Your task to perform on an android device: all mails in gmail Image 0: 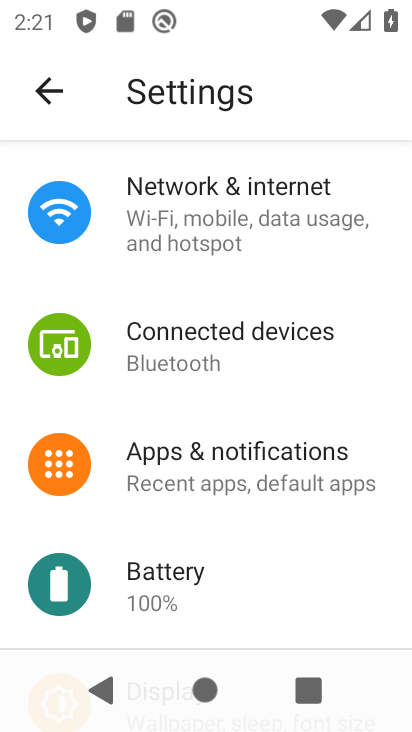
Step 0: press back button
Your task to perform on an android device: all mails in gmail Image 1: 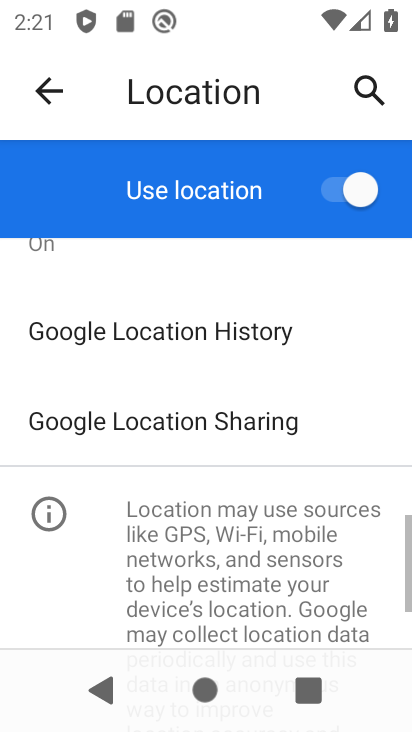
Step 1: press back button
Your task to perform on an android device: all mails in gmail Image 2: 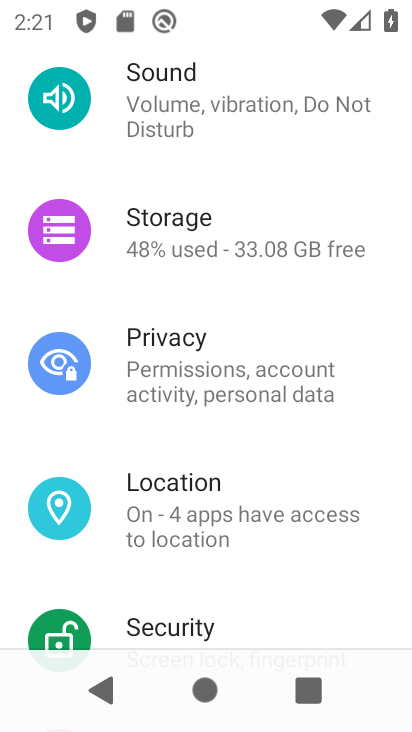
Step 2: press back button
Your task to perform on an android device: all mails in gmail Image 3: 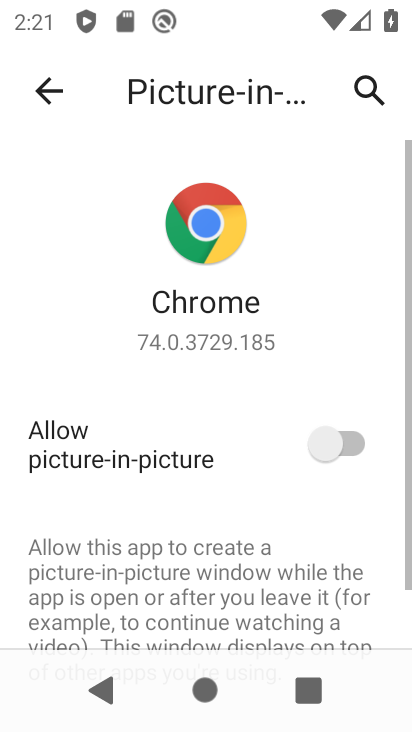
Step 3: press back button
Your task to perform on an android device: all mails in gmail Image 4: 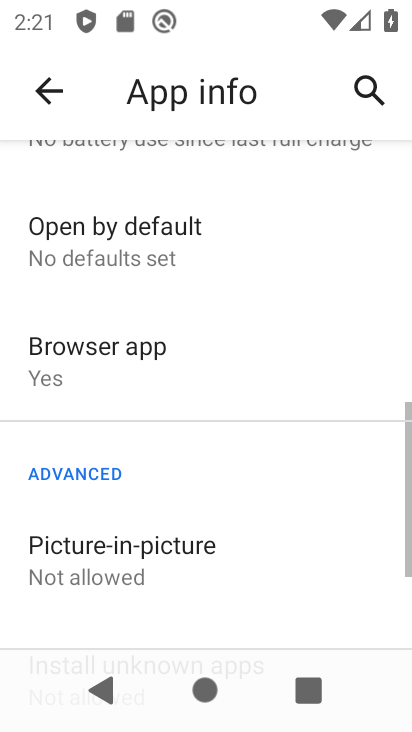
Step 4: press back button
Your task to perform on an android device: all mails in gmail Image 5: 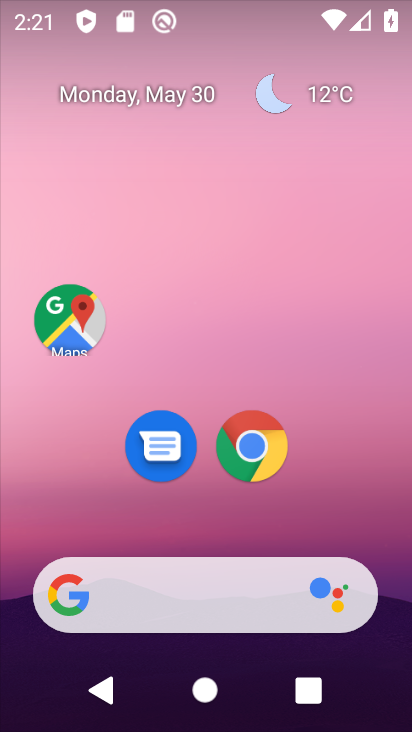
Step 5: drag from (330, 522) to (191, 74)
Your task to perform on an android device: all mails in gmail Image 6: 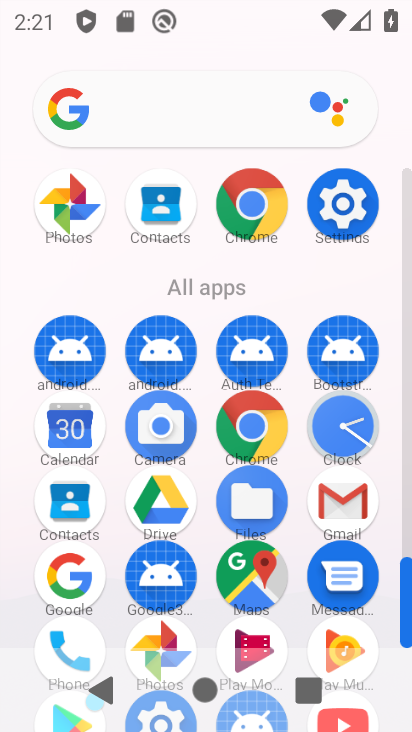
Step 6: click (343, 509)
Your task to perform on an android device: all mails in gmail Image 7: 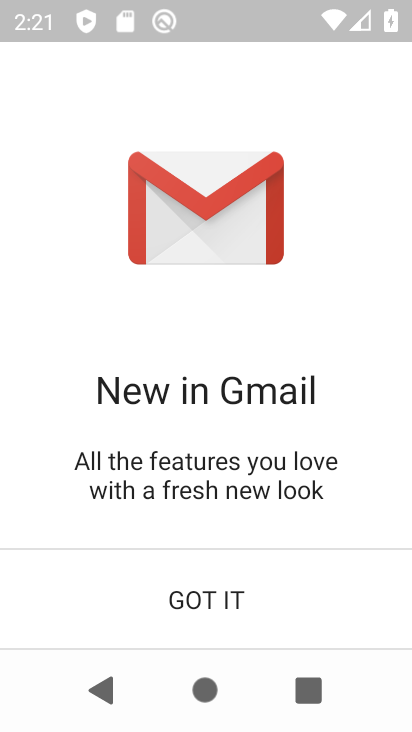
Step 7: click (214, 599)
Your task to perform on an android device: all mails in gmail Image 8: 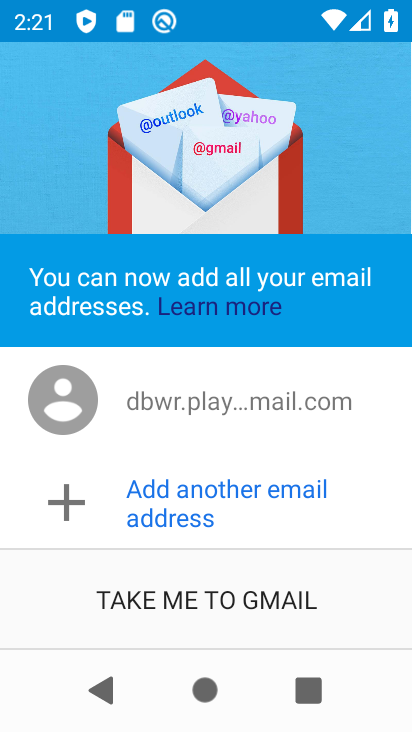
Step 8: click (214, 599)
Your task to perform on an android device: all mails in gmail Image 9: 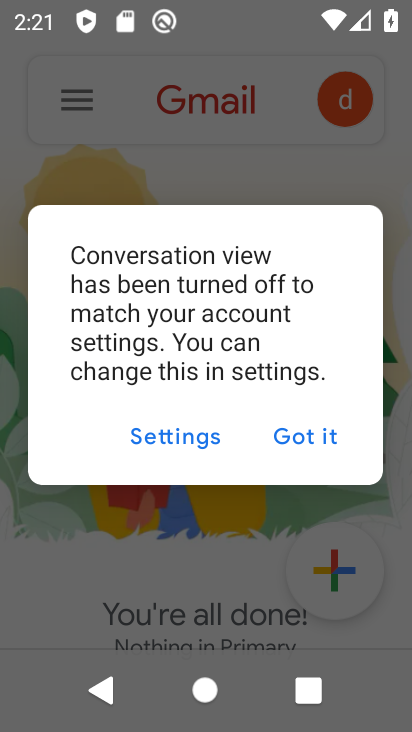
Step 9: click (307, 435)
Your task to perform on an android device: all mails in gmail Image 10: 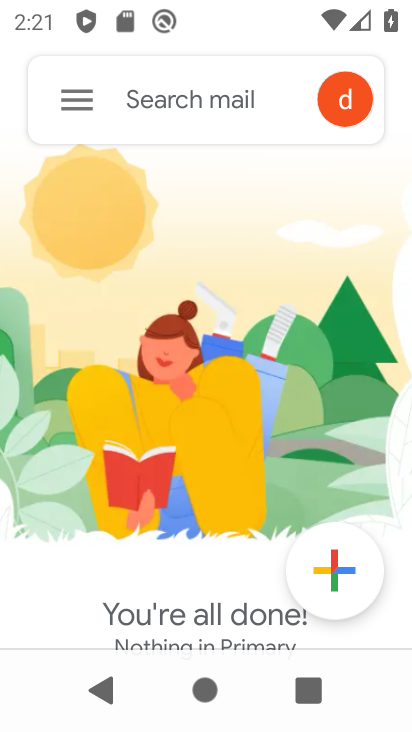
Step 10: click (74, 96)
Your task to perform on an android device: all mails in gmail Image 11: 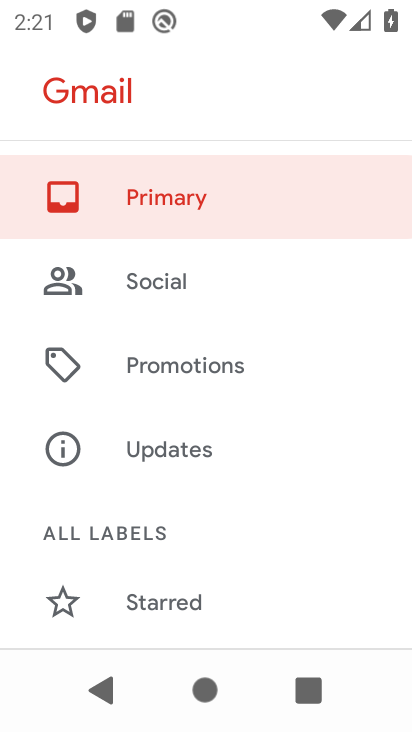
Step 11: drag from (161, 409) to (206, 317)
Your task to perform on an android device: all mails in gmail Image 12: 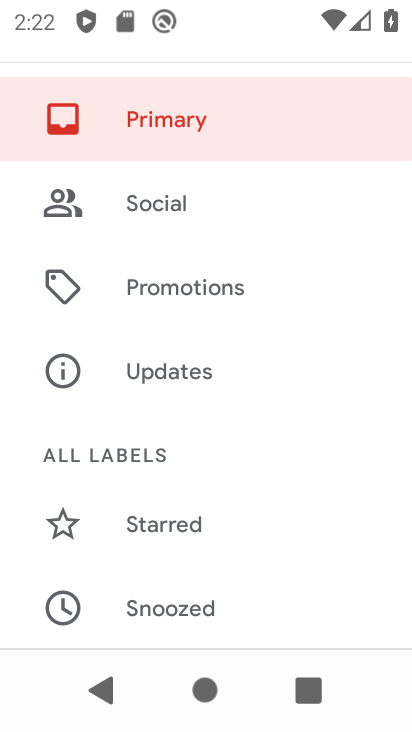
Step 12: drag from (167, 553) to (222, 473)
Your task to perform on an android device: all mails in gmail Image 13: 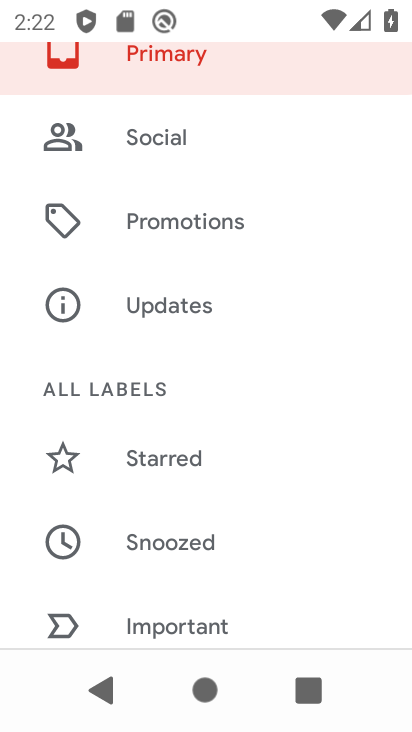
Step 13: drag from (178, 512) to (220, 395)
Your task to perform on an android device: all mails in gmail Image 14: 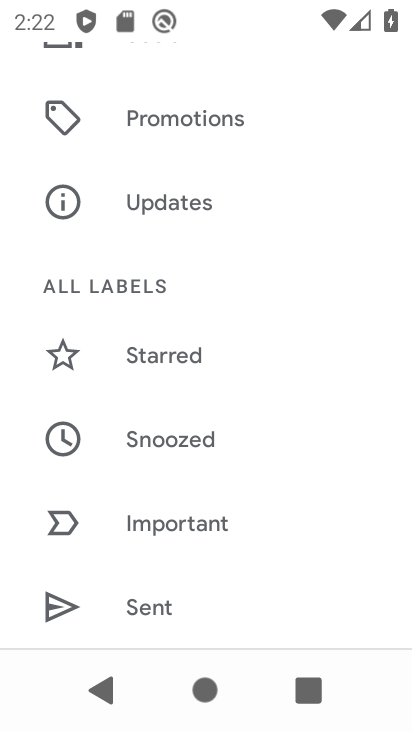
Step 14: drag from (163, 480) to (238, 382)
Your task to perform on an android device: all mails in gmail Image 15: 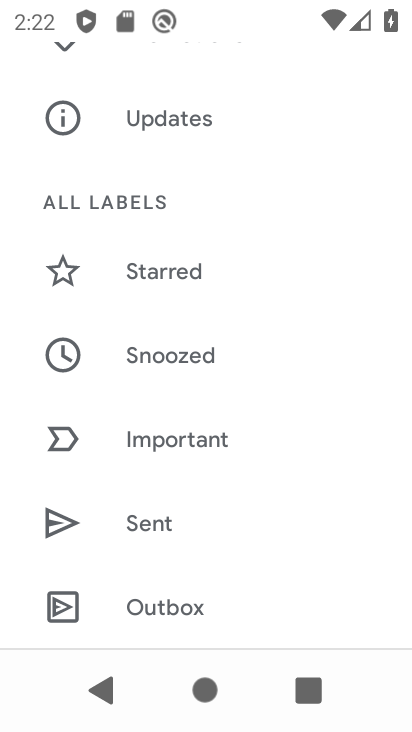
Step 15: drag from (173, 483) to (274, 375)
Your task to perform on an android device: all mails in gmail Image 16: 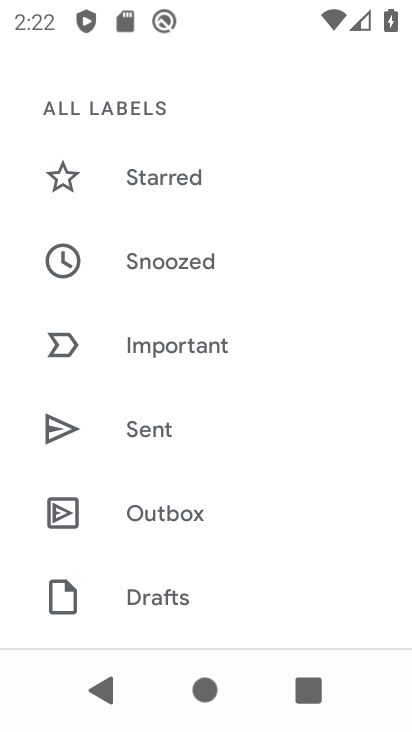
Step 16: drag from (160, 473) to (226, 369)
Your task to perform on an android device: all mails in gmail Image 17: 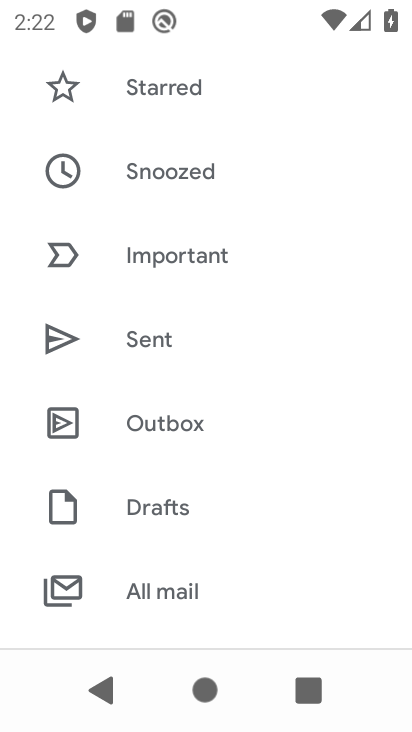
Step 17: drag from (148, 464) to (215, 368)
Your task to perform on an android device: all mails in gmail Image 18: 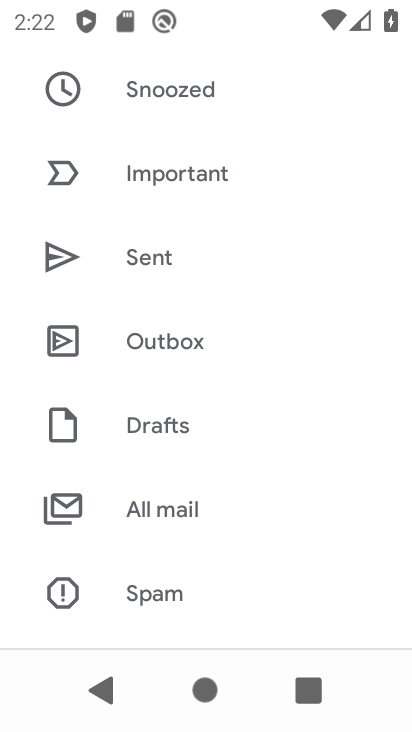
Step 18: drag from (160, 454) to (200, 367)
Your task to perform on an android device: all mails in gmail Image 19: 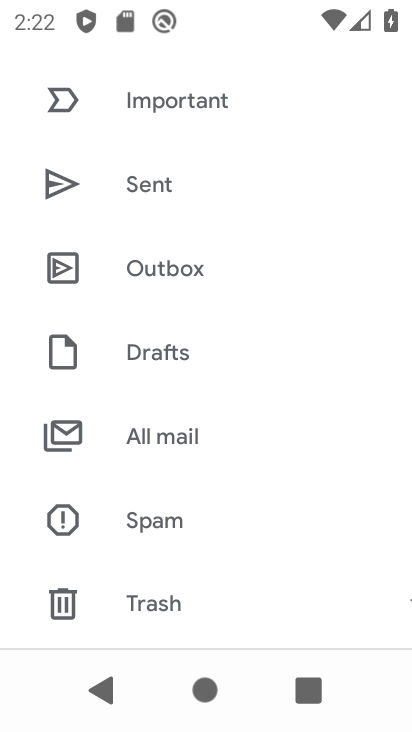
Step 19: click (178, 433)
Your task to perform on an android device: all mails in gmail Image 20: 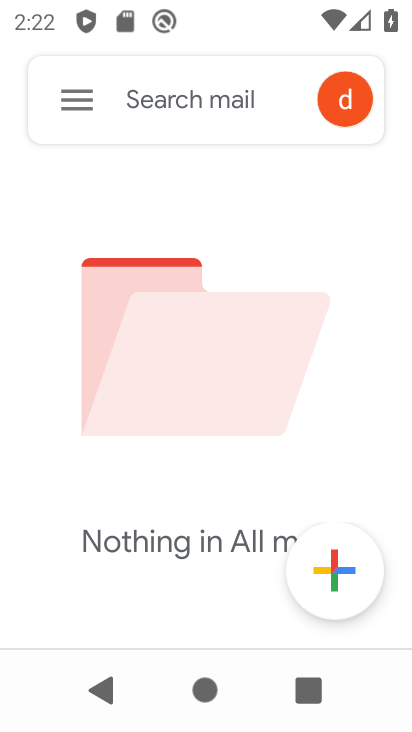
Step 20: task complete